Your task to perform on an android device: change the clock style Image 0: 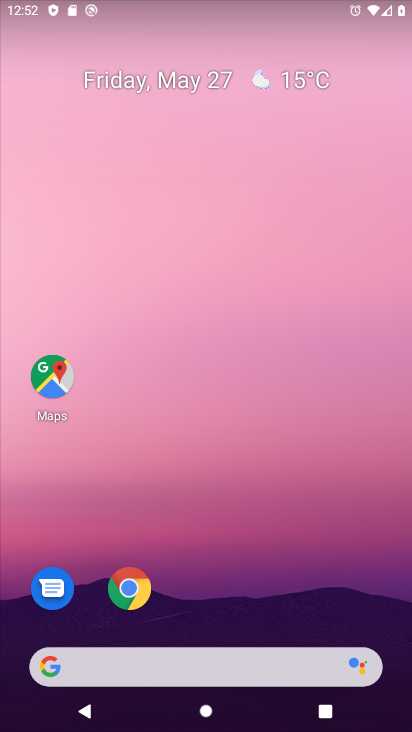
Step 0: drag from (375, 610) to (325, 78)
Your task to perform on an android device: change the clock style Image 1: 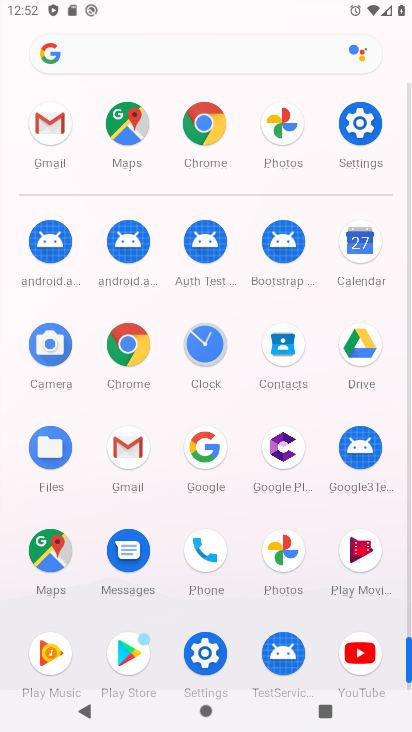
Step 1: click (205, 344)
Your task to perform on an android device: change the clock style Image 2: 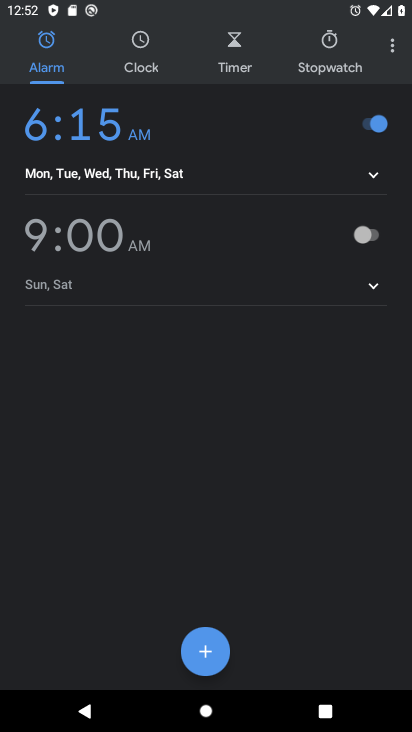
Step 2: click (390, 51)
Your task to perform on an android device: change the clock style Image 3: 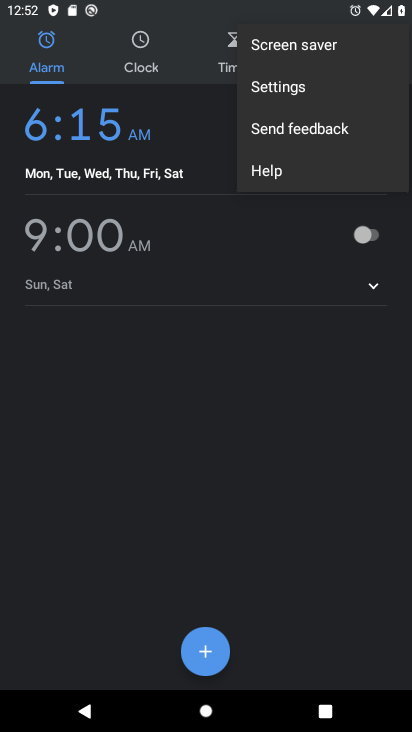
Step 3: click (275, 87)
Your task to perform on an android device: change the clock style Image 4: 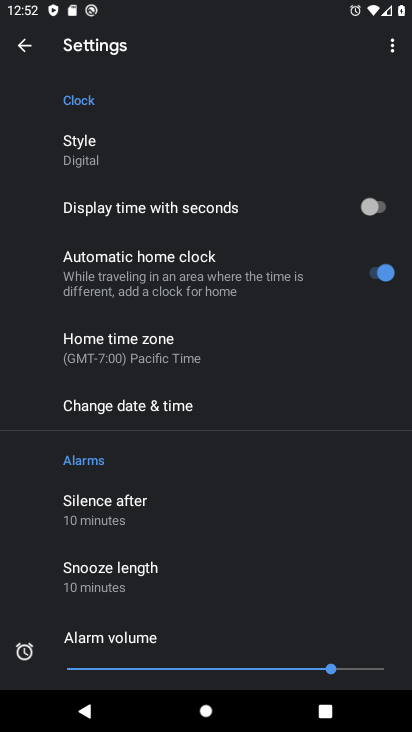
Step 4: click (80, 165)
Your task to perform on an android device: change the clock style Image 5: 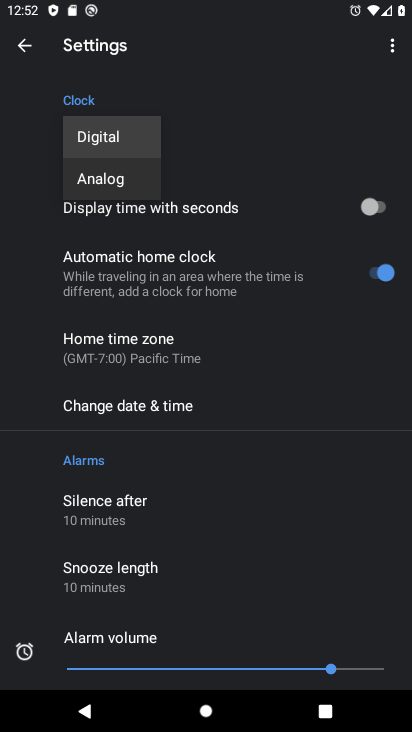
Step 5: click (107, 182)
Your task to perform on an android device: change the clock style Image 6: 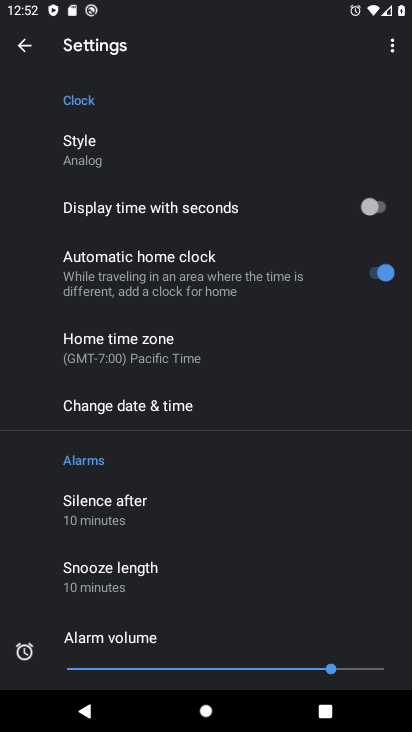
Step 6: task complete